Your task to perform on an android device: Open accessibility settings Image 0: 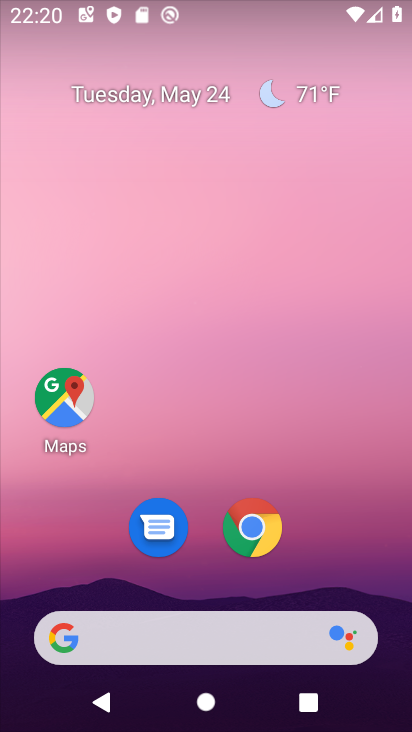
Step 0: drag from (314, 594) to (318, 6)
Your task to perform on an android device: Open accessibility settings Image 1: 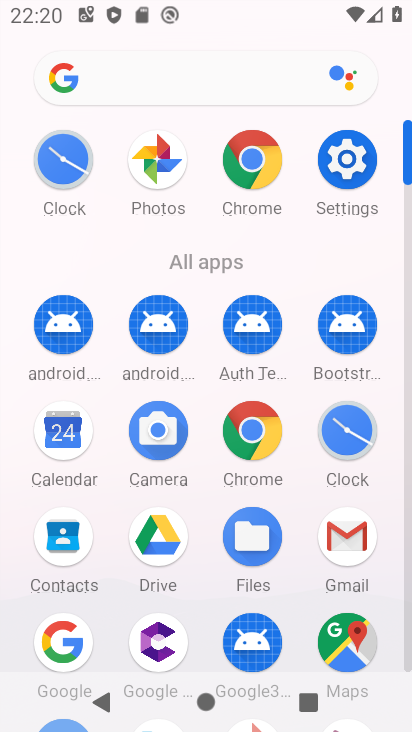
Step 1: click (348, 157)
Your task to perform on an android device: Open accessibility settings Image 2: 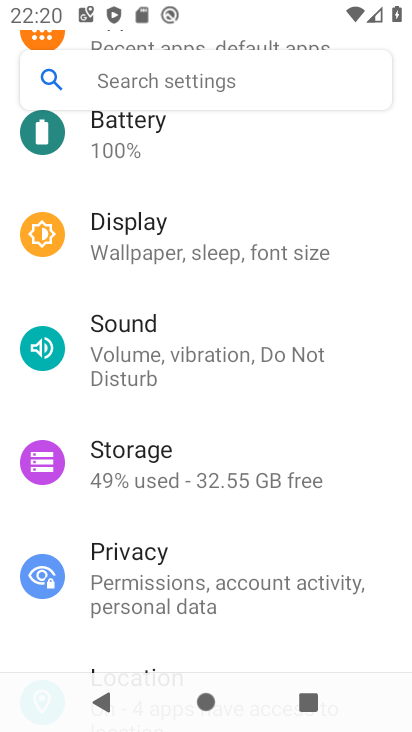
Step 2: drag from (217, 599) to (197, 321)
Your task to perform on an android device: Open accessibility settings Image 3: 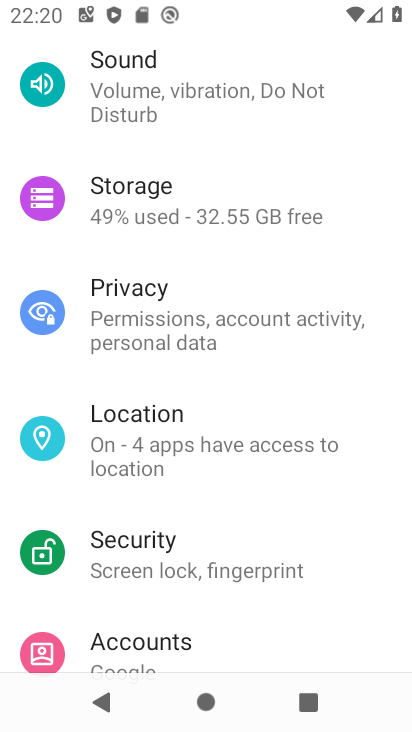
Step 3: drag from (222, 550) to (199, 312)
Your task to perform on an android device: Open accessibility settings Image 4: 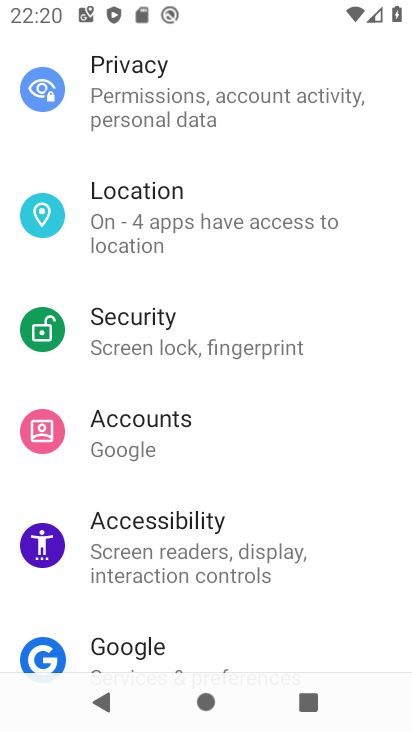
Step 4: click (221, 559)
Your task to perform on an android device: Open accessibility settings Image 5: 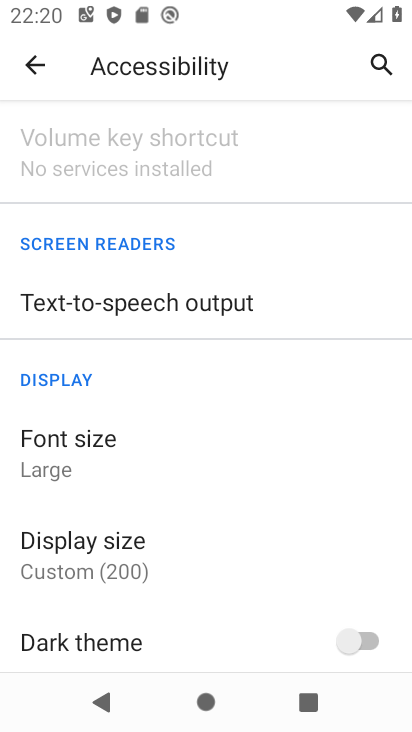
Step 5: task complete